Your task to perform on an android device: Show me popular games on the Play Store Image 0: 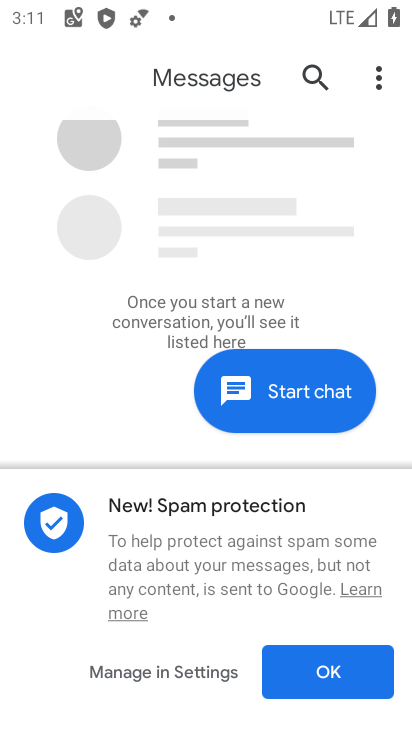
Step 0: press back button
Your task to perform on an android device: Show me popular games on the Play Store Image 1: 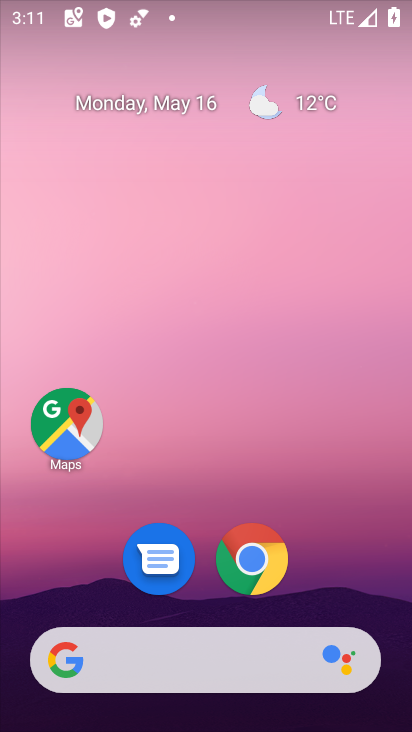
Step 1: drag from (158, 590) to (211, 185)
Your task to perform on an android device: Show me popular games on the Play Store Image 2: 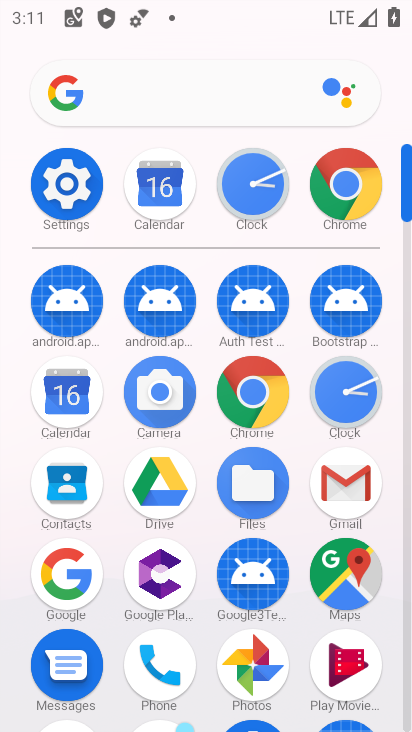
Step 2: drag from (230, 654) to (339, 132)
Your task to perform on an android device: Show me popular games on the Play Store Image 3: 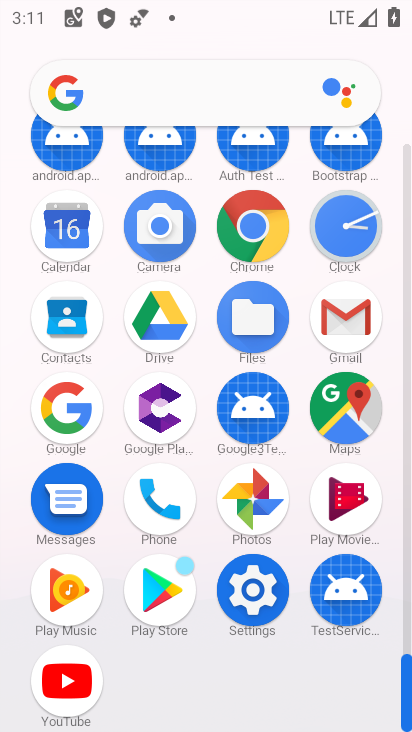
Step 3: click (162, 583)
Your task to perform on an android device: Show me popular games on the Play Store Image 4: 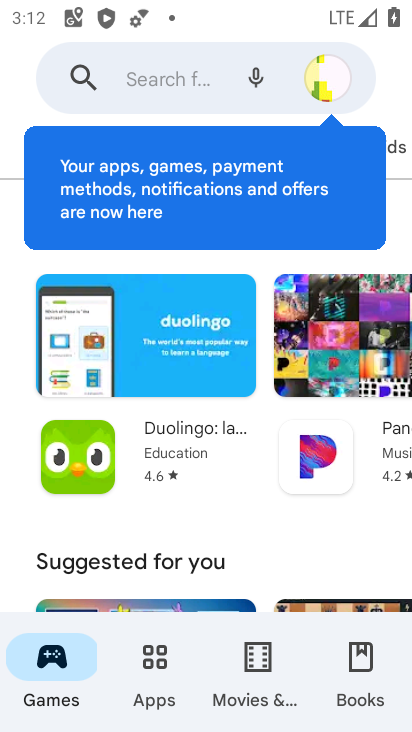
Step 4: click (64, 679)
Your task to perform on an android device: Show me popular games on the Play Store Image 5: 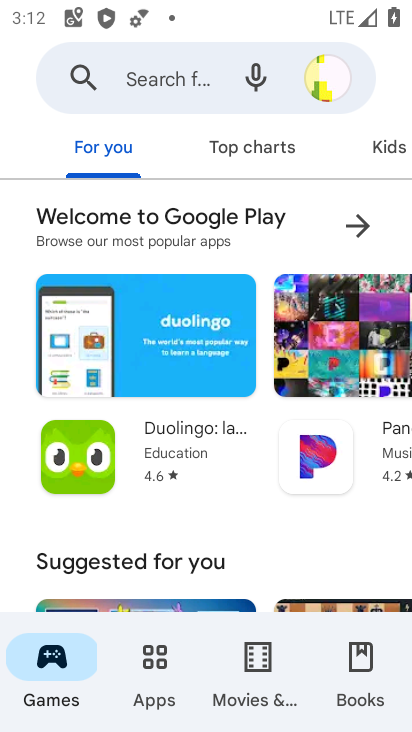
Step 5: drag from (174, 538) to (259, 109)
Your task to perform on an android device: Show me popular games on the Play Store Image 6: 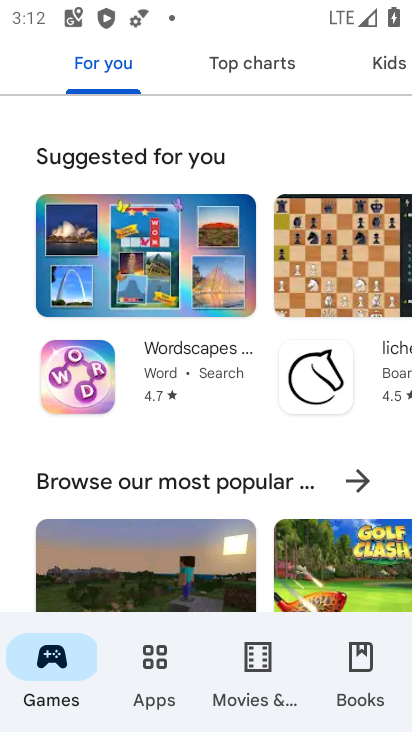
Step 6: click (351, 476)
Your task to perform on an android device: Show me popular games on the Play Store Image 7: 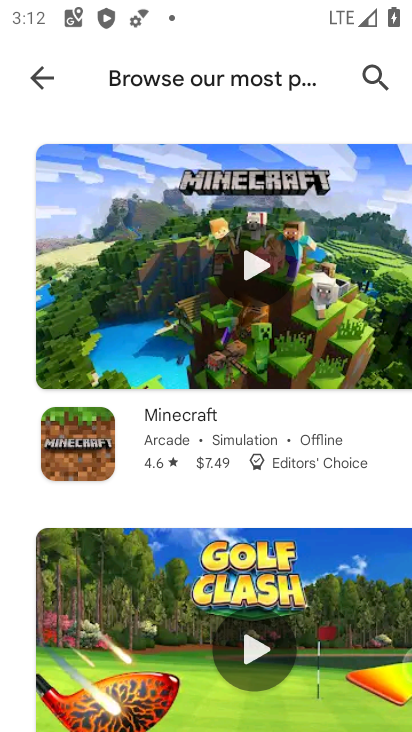
Step 7: task complete